Your task to perform on an android device: Show me popular games on the Play Store Image 0: 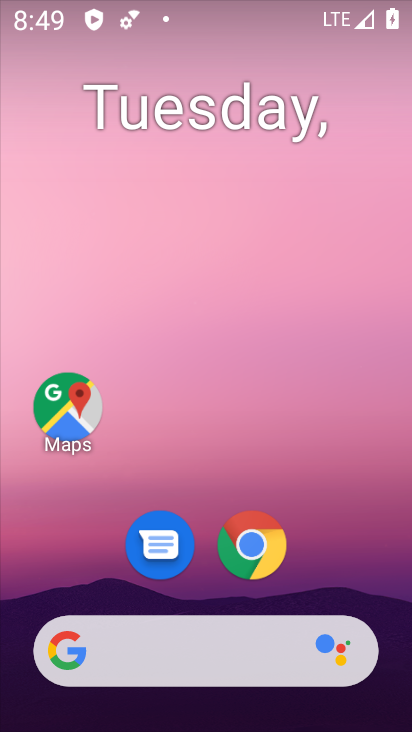
Step 0: click (172, 126)
Your task to perform on an android device: Show me popular games on the Play Store Image 1: 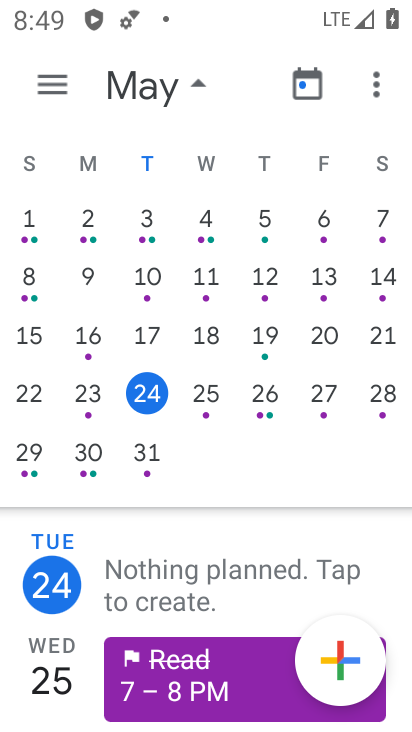
Step 1: press home button
Your task to perform on an android device: Show me popular games on the Play Store Image 2: 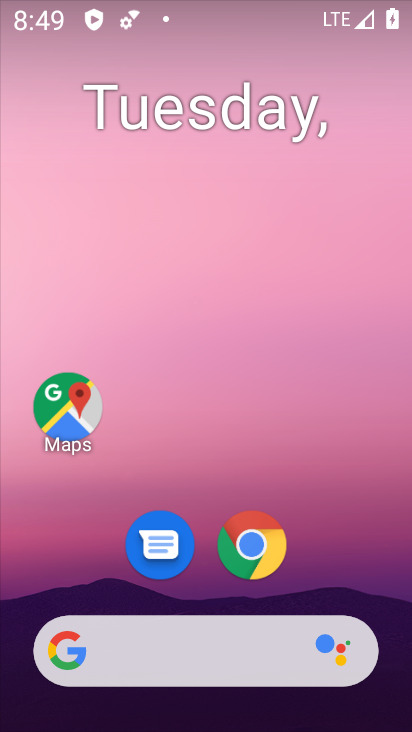
Step 2: drag from (197, 535) to (192, 32)
Your task to perform on an android device: Show me popular games on the Play Store Image 3: 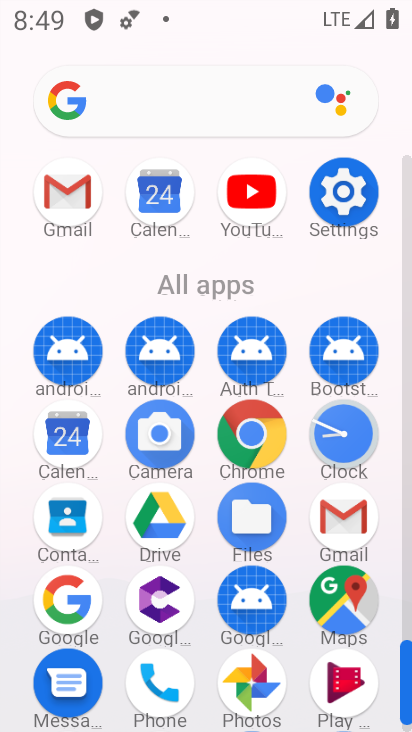
Step 3: click (205, 196)
Your task to perform on an android device: Show me popular games on the Play Store Image 4: 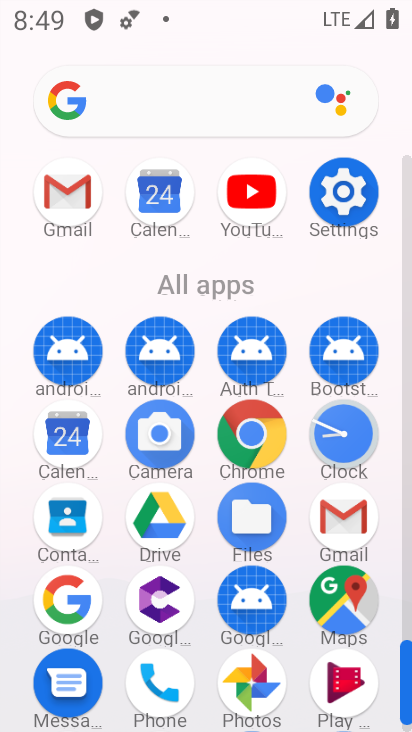
Step 4: drag from (203, 580) to (205, 255)
Your task to perform on an android device: Show me popular games on the Play Store Image 5: 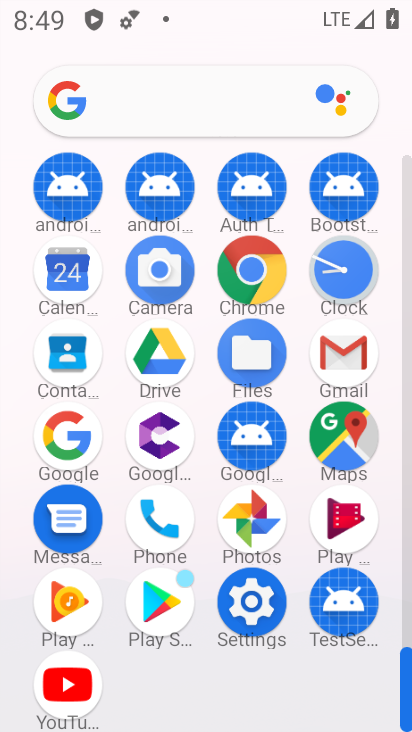
Step 5: click (161, 616)
Your task to perform on an android device: Show me popular games on the Play Store Image 6: 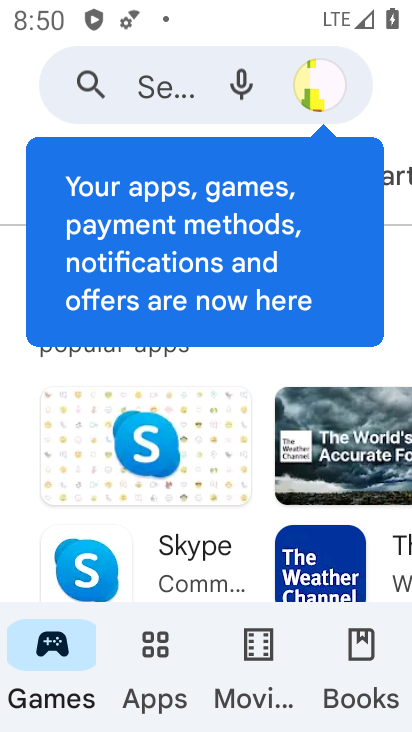
Step 6: click (25, 668)
Your task to perform on an android device: Show me popular games on the Play Store Image 7: 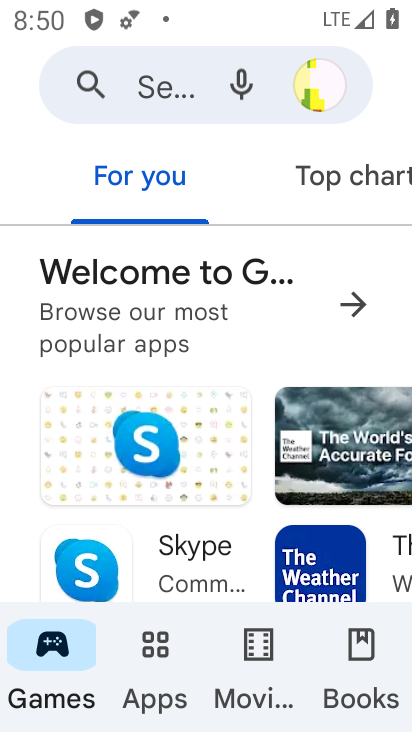
Step 7: click (355, 169)
Your task to perform on an android device: Show me popular games on the Play Store Image 8: 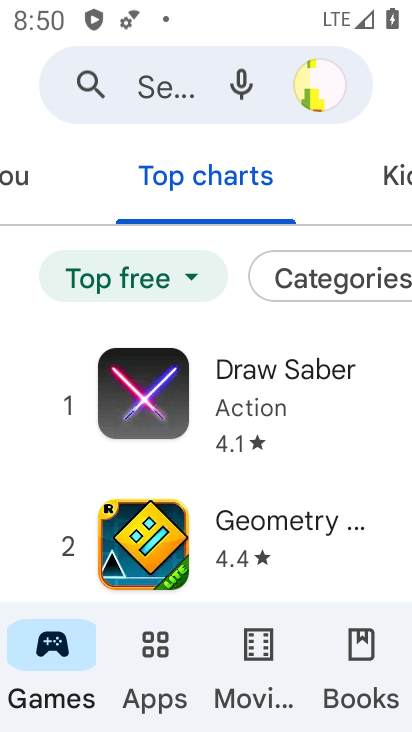
Step 8: task complete